Your task to perform on an android device: Open the calendar and show me this week's events Image 0: 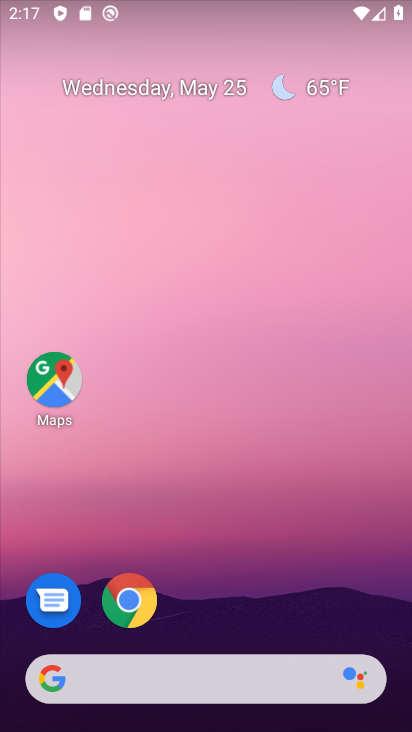
Step 0: drag from (300, 564) to (194, 213)
Your task to perform on an android device: Open the calendar and show me this week's events Image 1: 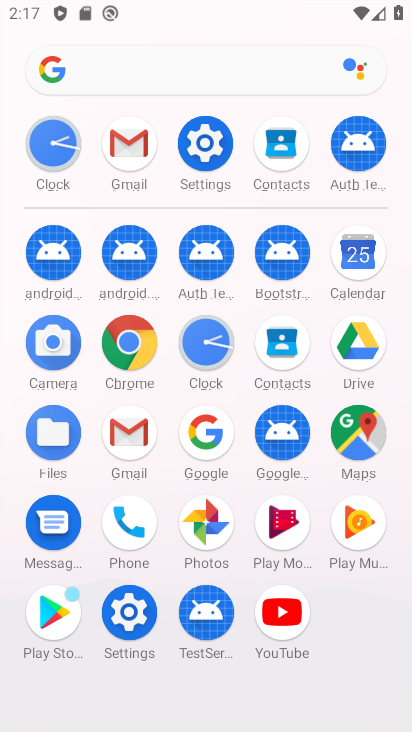
Step 1: click (356, 251)
Your task to perform on an android device: Open the calendar and show me this week's events Image 2: 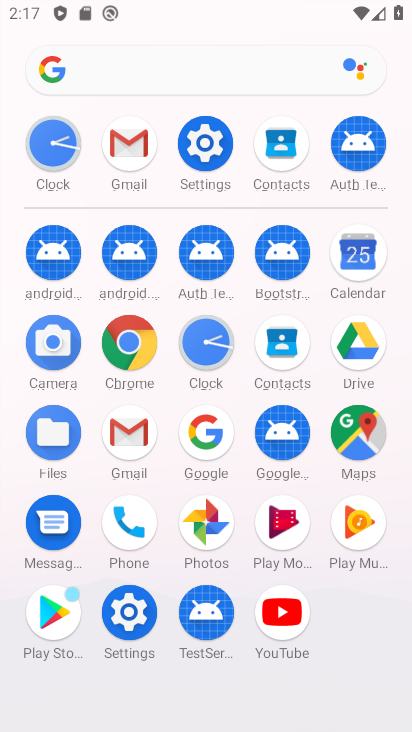
Step 2: click (356, 251)
Your task to perform on an android device: Open the calendar and show me this week's events Image 3: 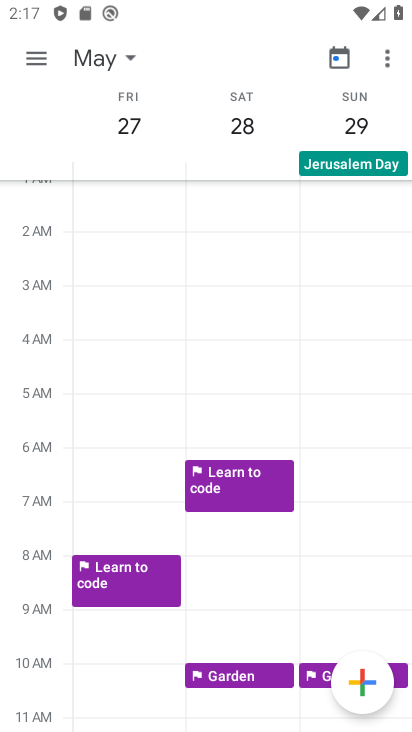
Step 3: click (119, 69)
Your task to perform on an android device: Open the calendar and show me this week's events Image 4: 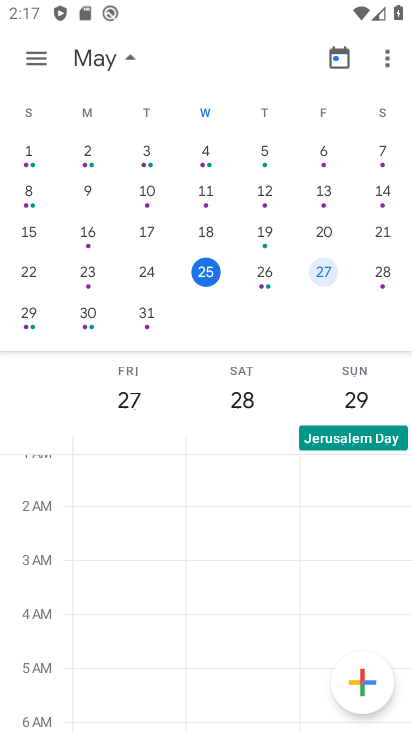
Step 4: click (43, 56)
Your task to perform on an android device: Open the calendar and show me this week's events Image 5: 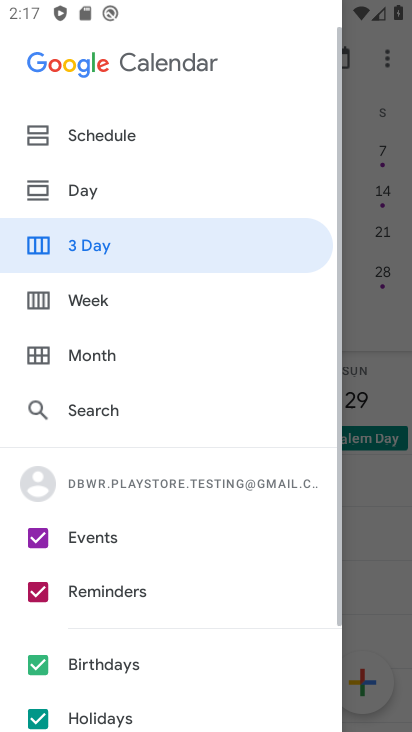
Step 5: click (102, 300)
Your task to perform on an android device: Open the calendar and show me this week's events Image 6: 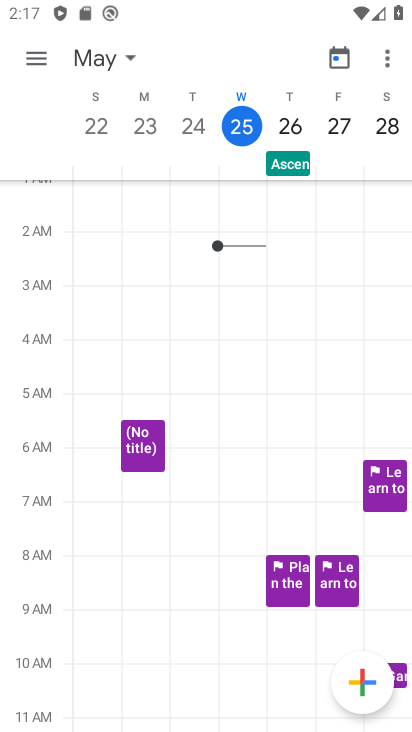
Step 6: task complete